Your task to perform on an android device: Open the map Image 0: 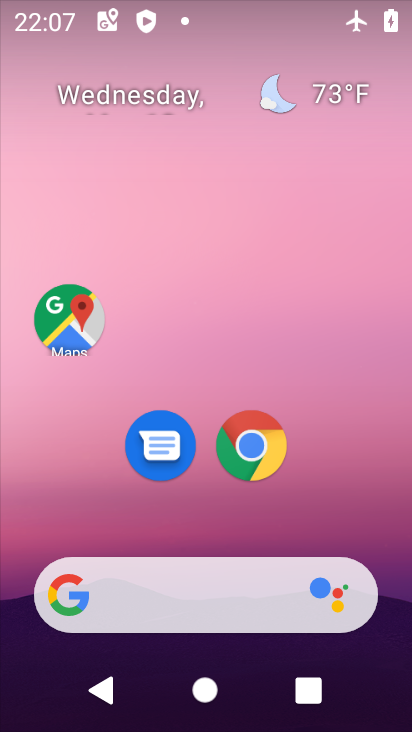
Step 0: click (53, 307)
Your task to perform on an android device: Open the map Image 1: 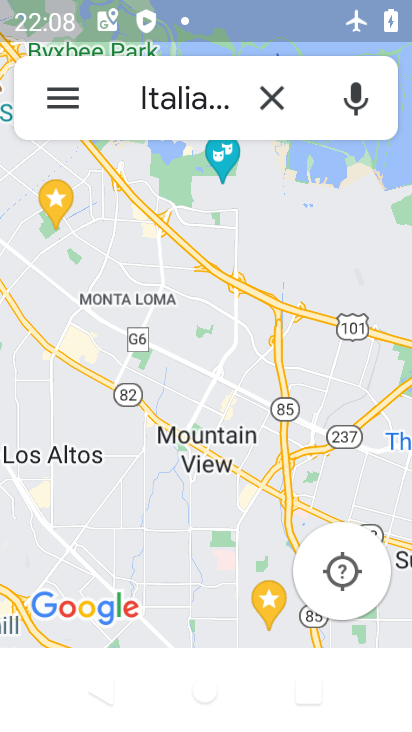
Step 1: task complete